Your task to perform on an android device: Open the phone app and click the voicemail tab. Image 0: 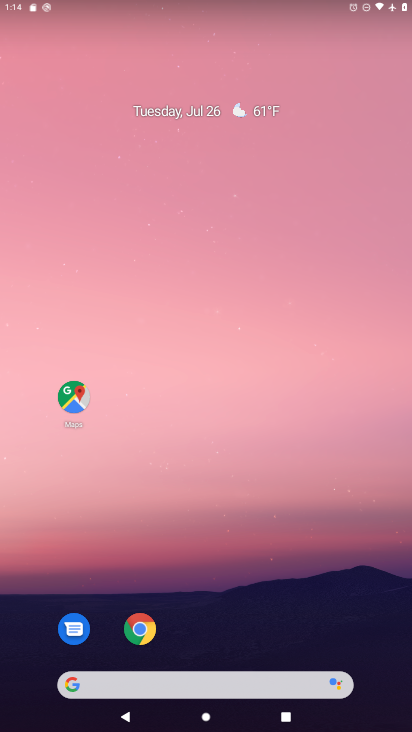
Step 0: drag from (205, 675) to (220, 46)
Your task to perform on an android device: Open the phone app and click the voicemail tab. Image 1: 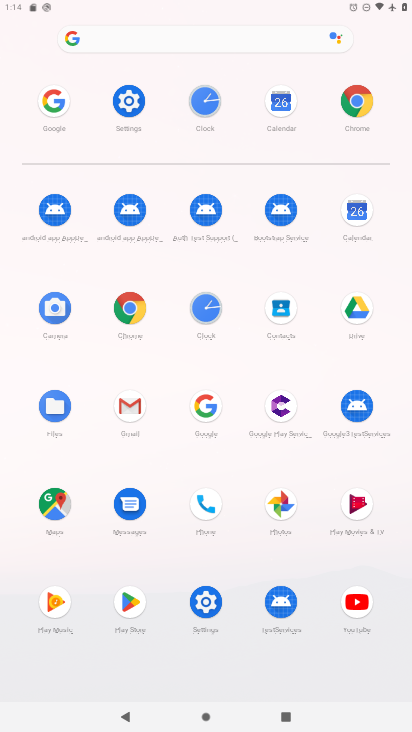
Step 1: click (198, 490)
Your task to perform on an android device: Open the phone app and click the voicemail tab. Image 2: 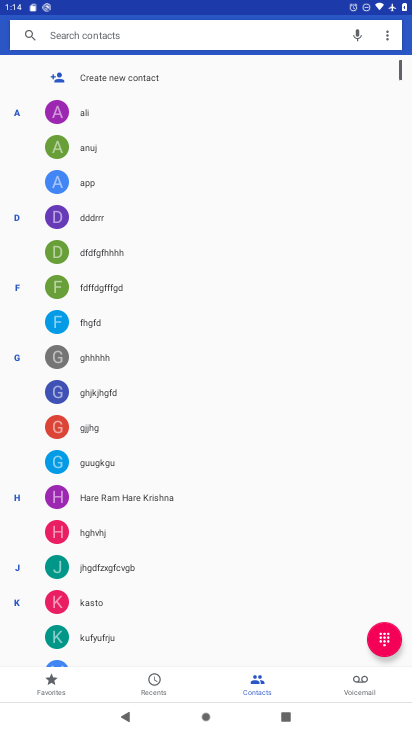
Step 2: click (355, 682)
Your task to perform on an android device: Open the phone app and click the voicemail tab. Image 3: 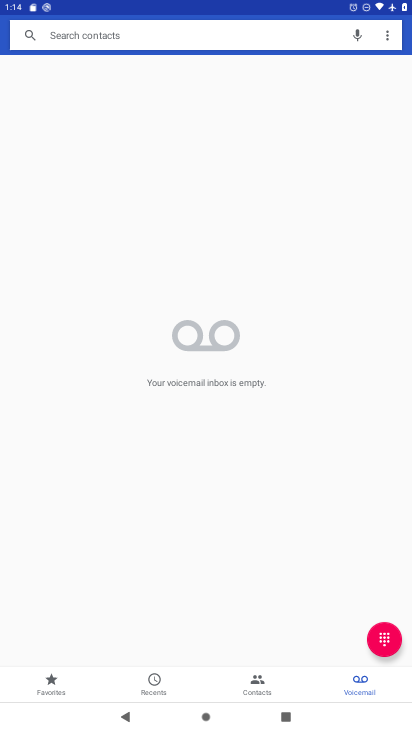
Step 3: task complete